Your task to perform on an android device: empty trash in google photos Image 0: 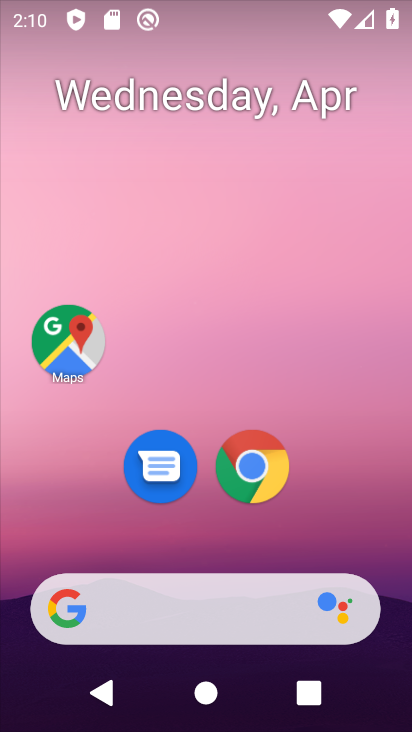
Step 0: drag from (235, 585) to (251, 230)
Your task to perform on an android device: empty trash in google photos Image 1: 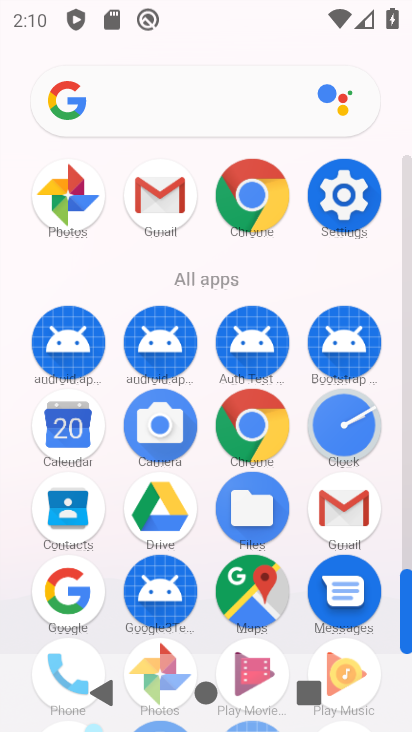
Step 1: drag from (188, 605) to (306, 151)
Your task to perform on an android device: empty trash in google photos Image 2: 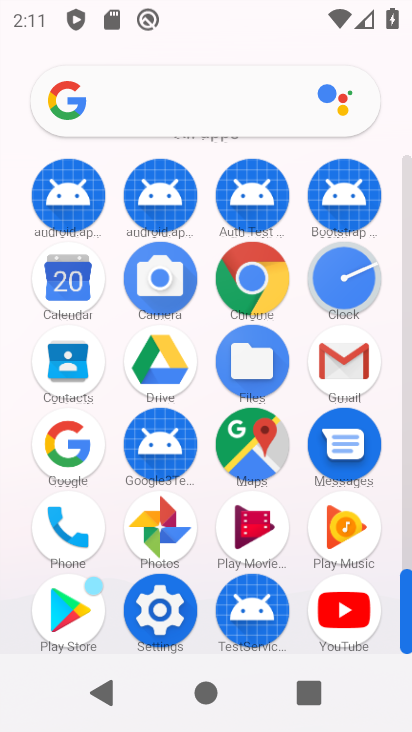
Step 2: click (168, 492)
Your task to perform on an android device: empty trash in google photos Image 3: 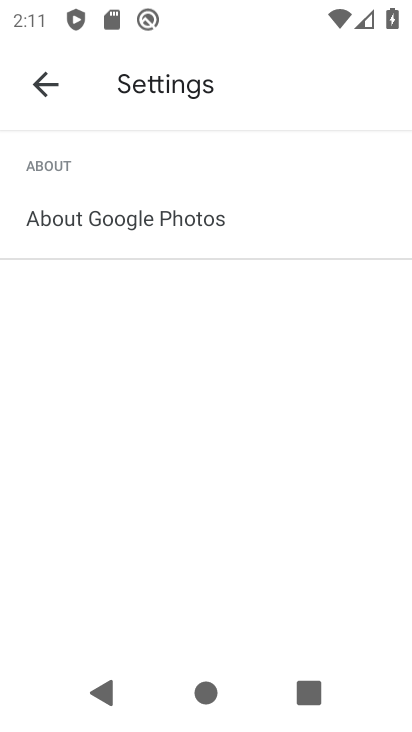
Step 3: click (43, 90)
Your task to perform on an android device: empty trash in google photos Image 4: 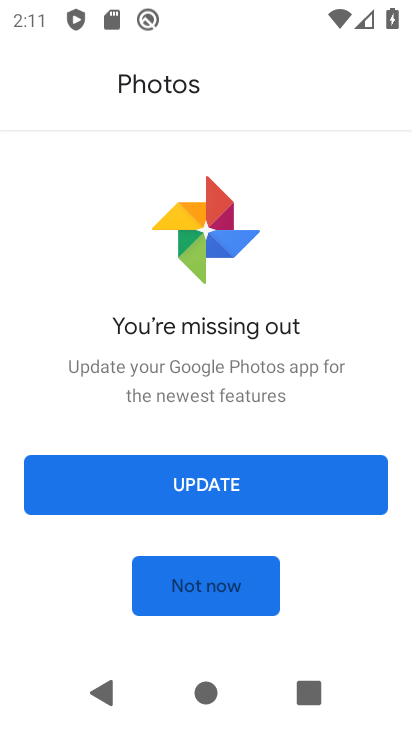
Step 4: drag from (299, 413) to (207, 558)
Your task to perform on an android device: empty trash in google photos Image 5: 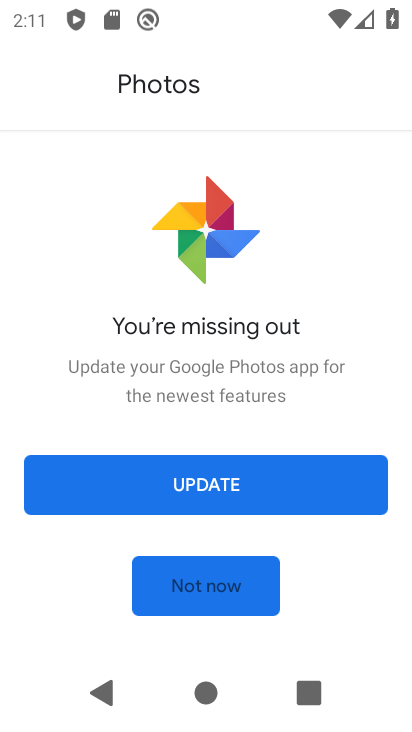
Step 5: click (197, 565)
Your task to perform on an android device: empty trash in google photos Image 6: 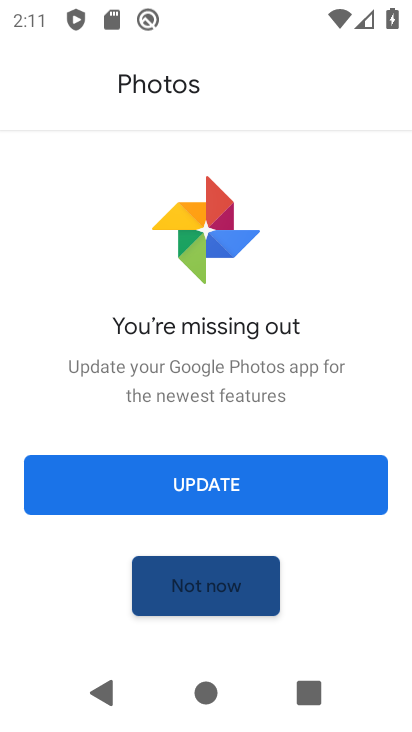
Step 6: click (202, 580)
Your task to perform on an android device: empty trash in google photos Image 7: 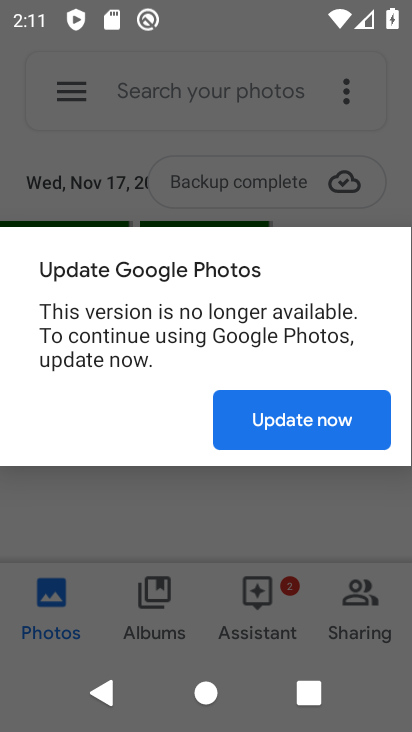
Step 7: click (302, 431)
Your task to perform on an android device: empty trash in google photos Image 8: 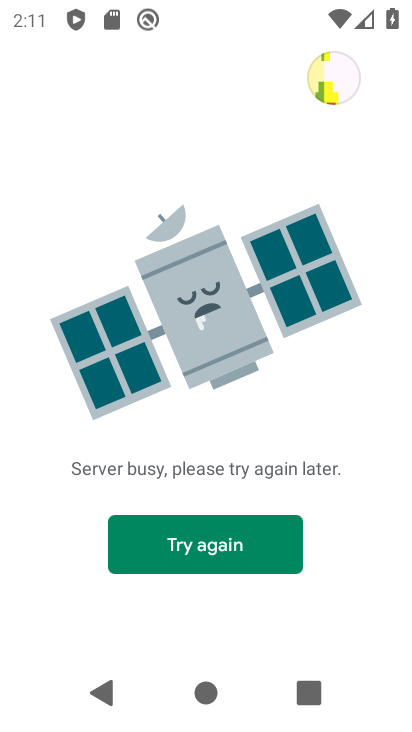
Step 8: press back button
Your task to perform on an android device: empty trash in google photos Image 9: 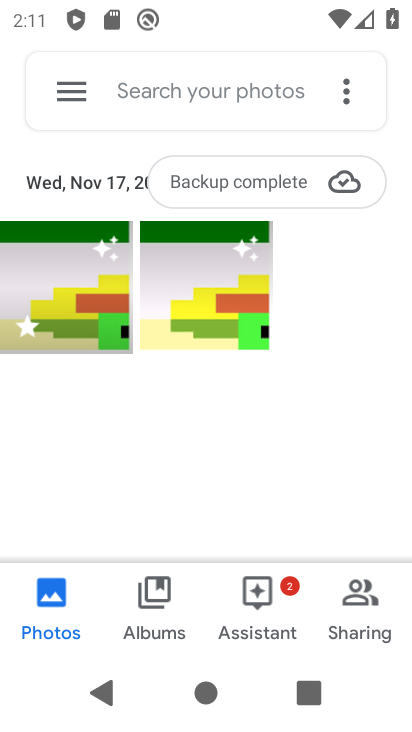
Step 9: click (78, 89)
Your task to perform on an android device: empty trash in google photos Image 10: 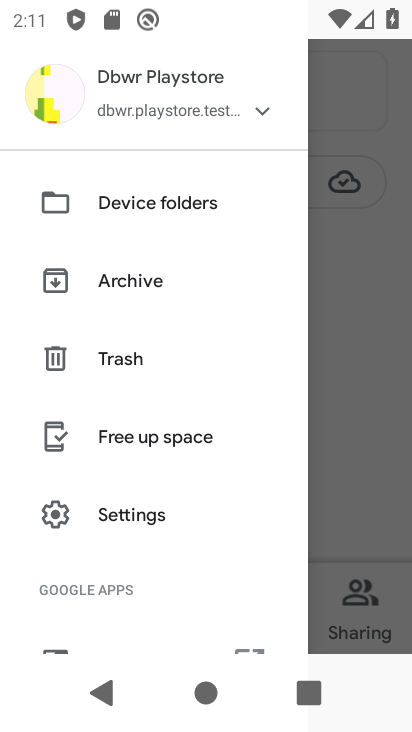
Step 10: click (146, 363)
Your task to perform on an android device: empty trash in google photos Image 11: 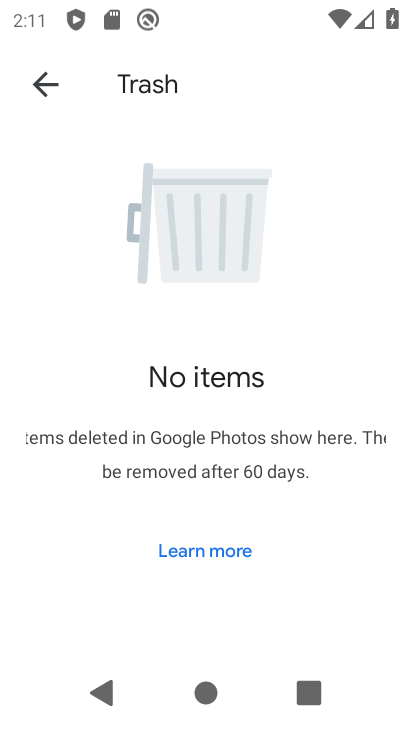
Step 11: task complete